Your task to perform on an android device: Go to Reddit.com Image 0: 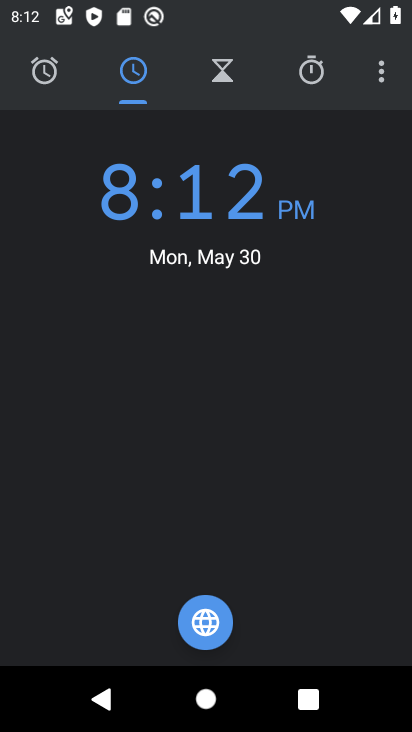
Step 0: press home button
Your task to perform on an android device: Go to Reddit.com Image 1: 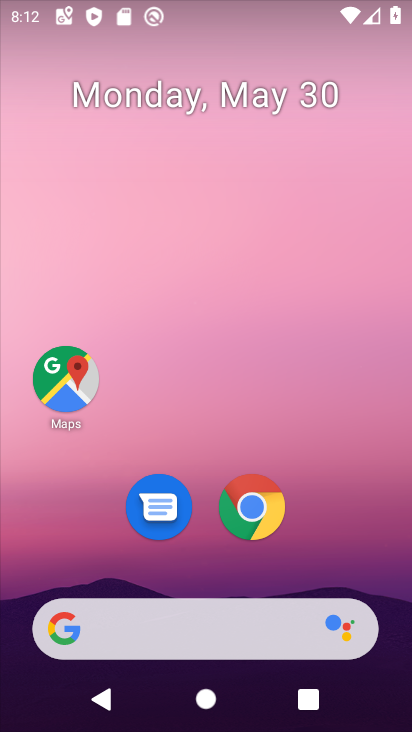
Step 1: click (244, 511)
Your task to perform on an android device: Go to Reddit.com Image 2: 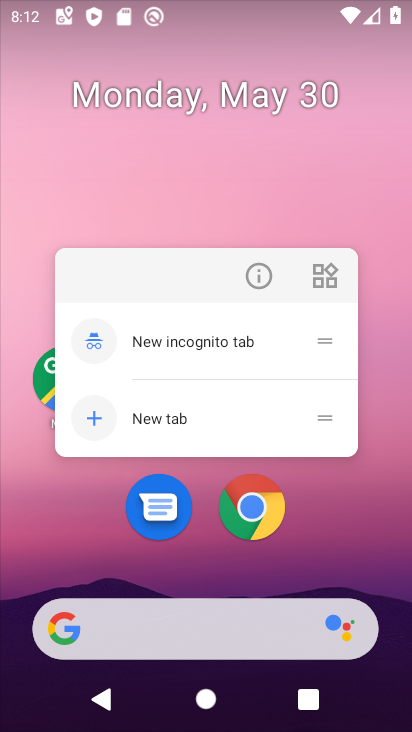
Step 2: click (244, 511)
Your task to perform on an android device: Go to Reddit.com Image 3: 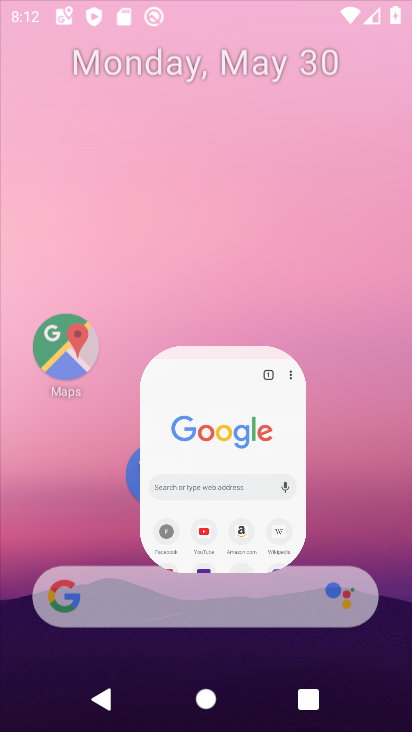
Step 3: click (244, 511)
Your task to perform on an android device: Go to Reddit.com Image 4: 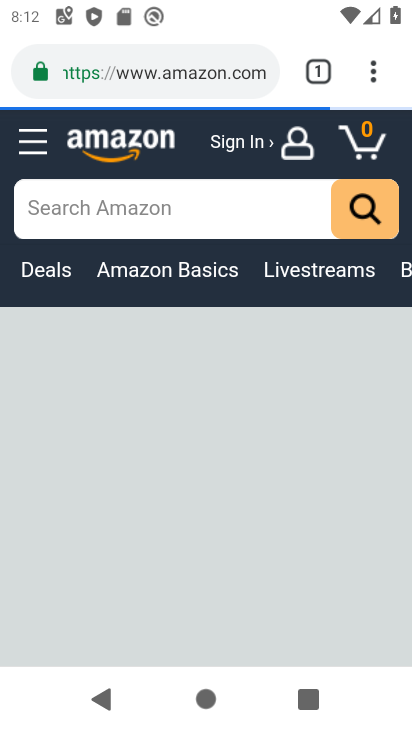
Step 4: click (173, 80)
Your task to perform on an android device: Go to Reddit.com Image 5: 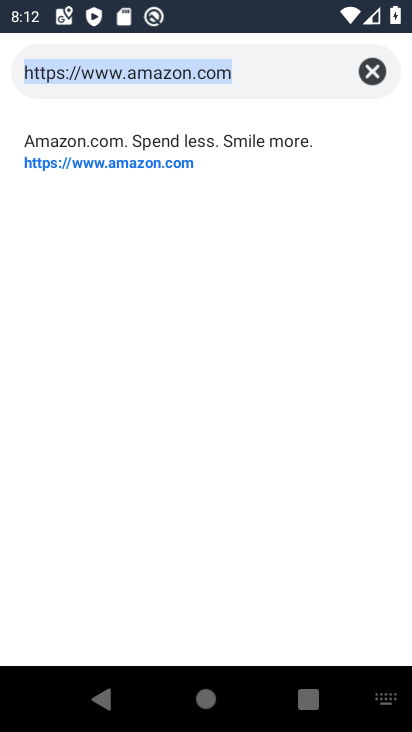
Step 5: type "Reddit.com"
Your task to perform on an android device: Go to Reddit.com Image 6: 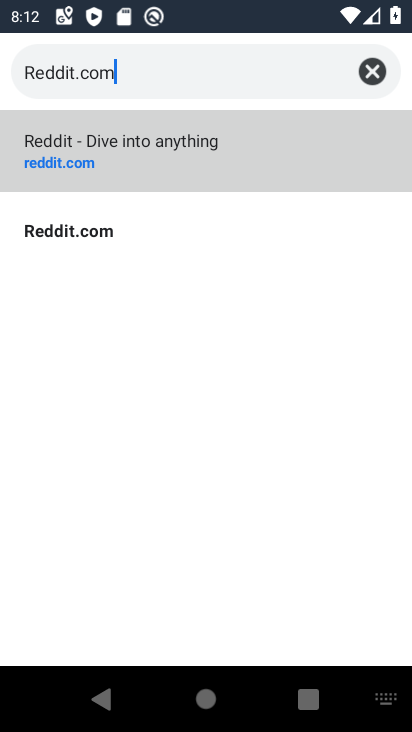
Step 6: click (94, 174)
Your task to perform on an android device: Go to Reddit.com Image 7: 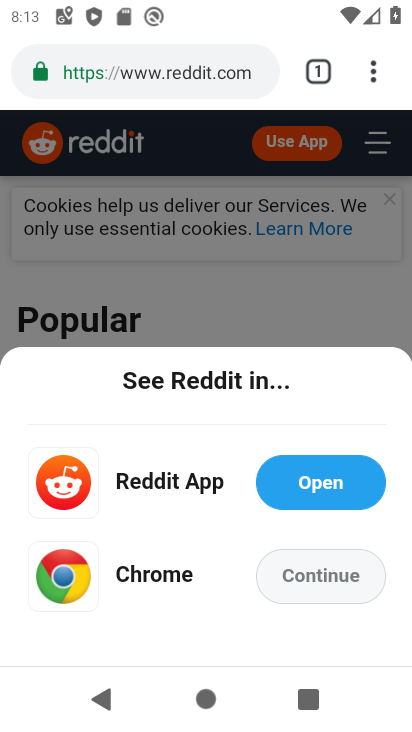
Step 7: task complete